Your task to perform on an android device: toggle show notifications on the lock screen Image 0: 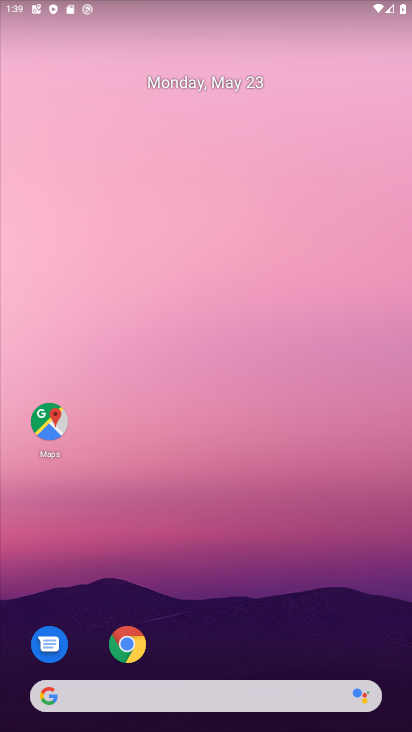
Step 0: drag from (268, 575) to (294, 32)
Your task to perform on an android device: toggle show notifications on the lock screen Image 1: 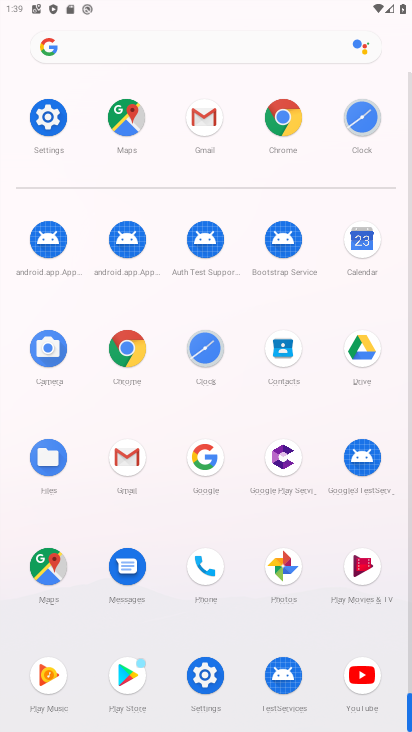
Step 1: drag from (5, 622) to (29, 221)
Your task to perform on an android device: toggle show notifications on the lock screen Image 2: 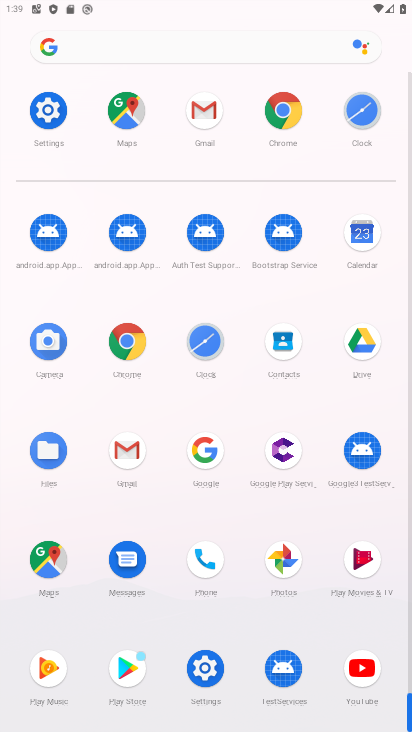
Step 2: drag from (3, 643) to (19, 242)
Your task to perform on an android device: toggle show notifications on the lock screen Image 3: 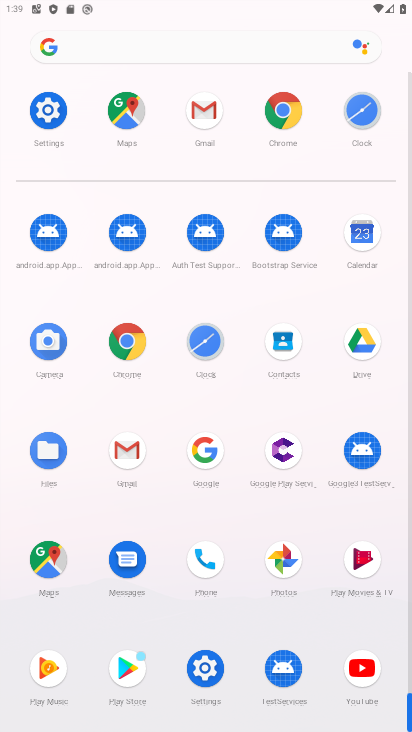
Step 3: click (201, 666)
Your task to perform on an android device: toggle show notifications on the lock screen Image 4: 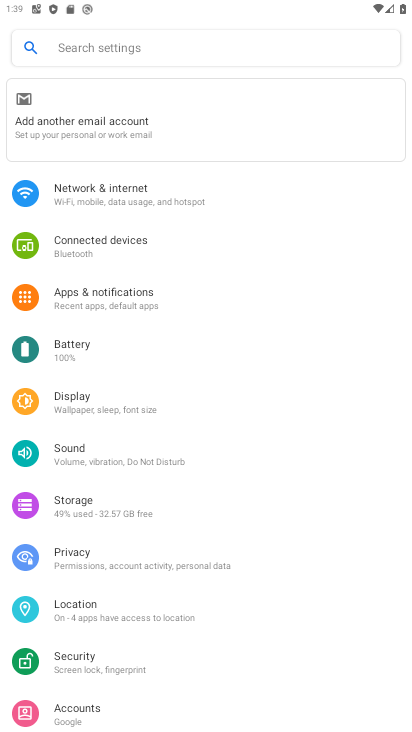
Step 4: click (135, 301)
Your task to perform on an android device: toggle show notifications on the lock screen Image 5: 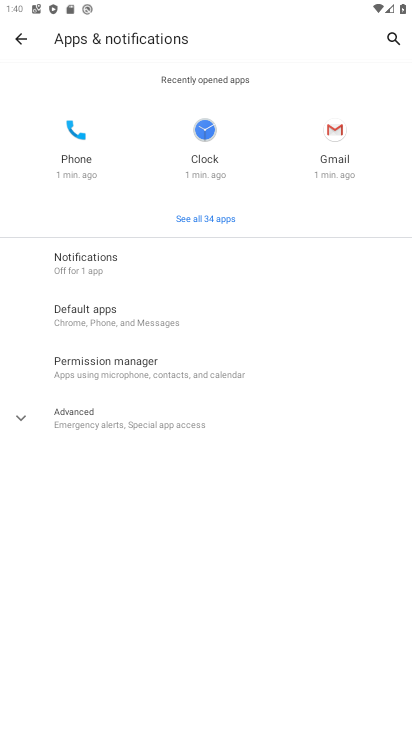
Step 5: click (31, 421)
Your task to perform on an android device: toggle show notifications on the lock screen Image 6: 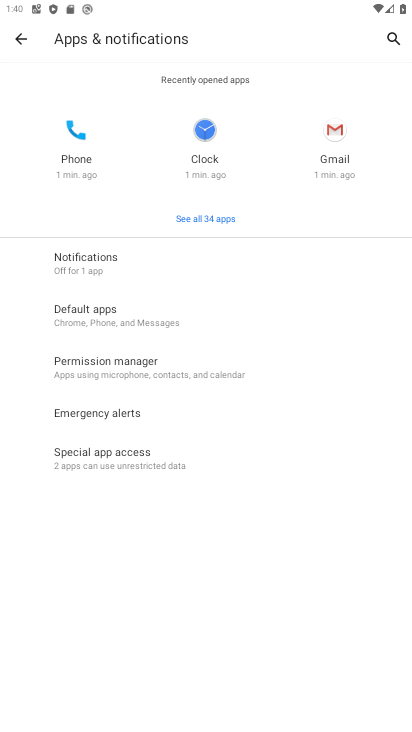
Step 6: click (135, 264)
Your task to perform on an android device: toggle show notifications on the lock screen Image 7: 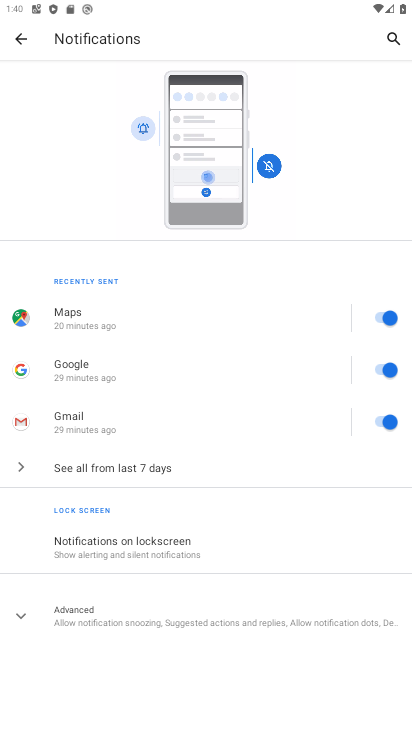
Step 7: drag from (200, 535) to (209, 333)
Your task to perform on an android device: toggle show notifications on the lock screen Image 8: 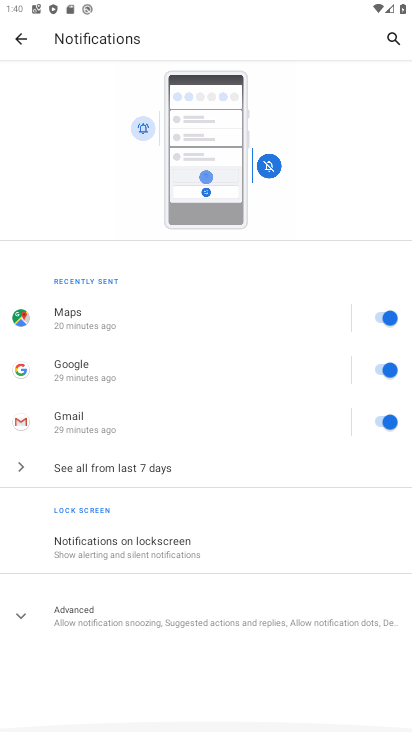
Step 8: click (38, 607)
Your task to perform on an android device: toggle show notifications on the lock screen Image 9: 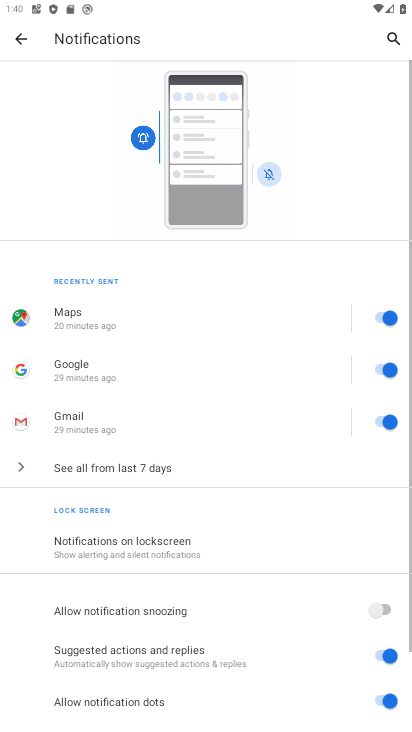
Step 9: drag from (224, 594) to (260, 227)
Your task to perform on an android device: toggle show notifications on the lock screen Image 10: 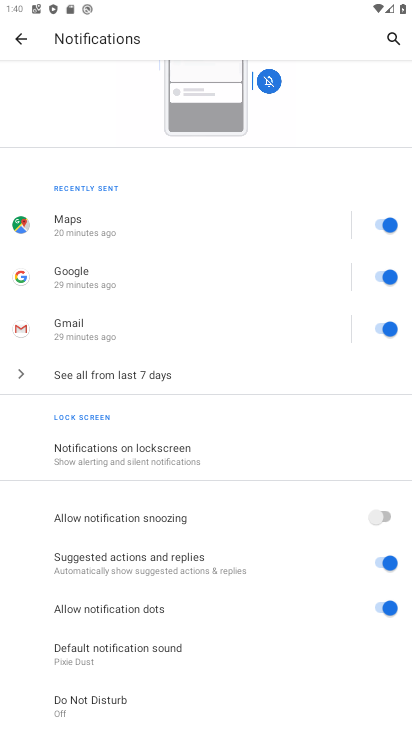
Step 10: click (187, 449)
Your task to perform on an android device: toggle show notifications on the lock screen Image 11: 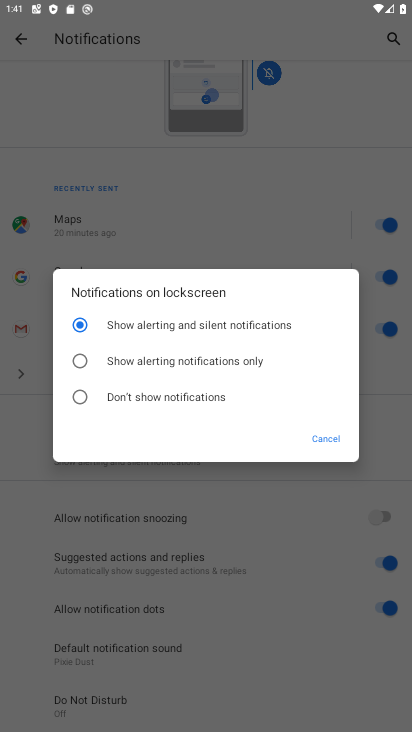
Step 11: click (177, 356)
Your task to perform on an android device: toggle show notifications on the lock screen Image 12: 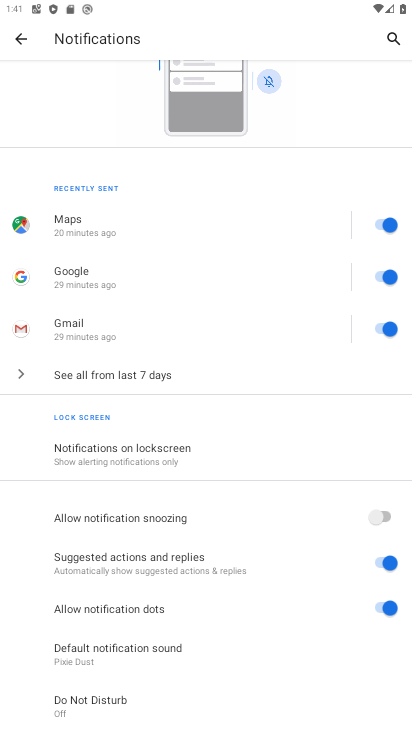
Step 12: task complete